Your task to perform on an android device: change the upload size in google photos Image 0: 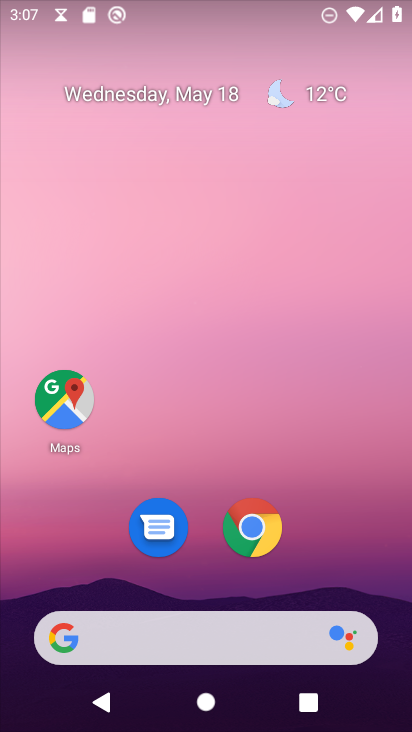
Step 0: drag from (311, 536) to (239, 55)
Your task to perform on an android device: change the upload size in google photos Image 1: 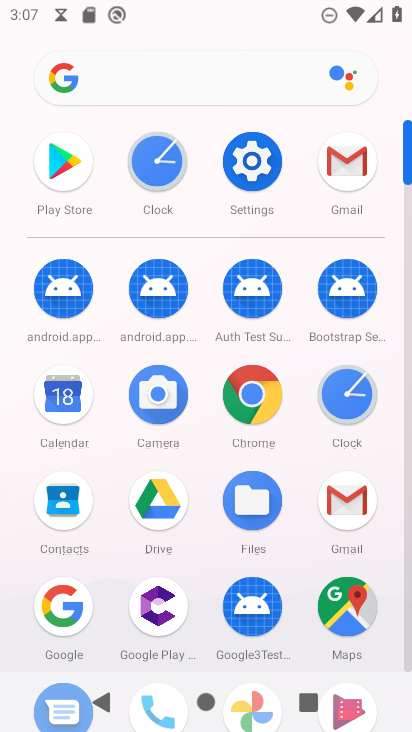
Step 1: drag from (295, 650) to (269, 337)
Your task to perform on an android device: change the upload size in google photos Image 2: 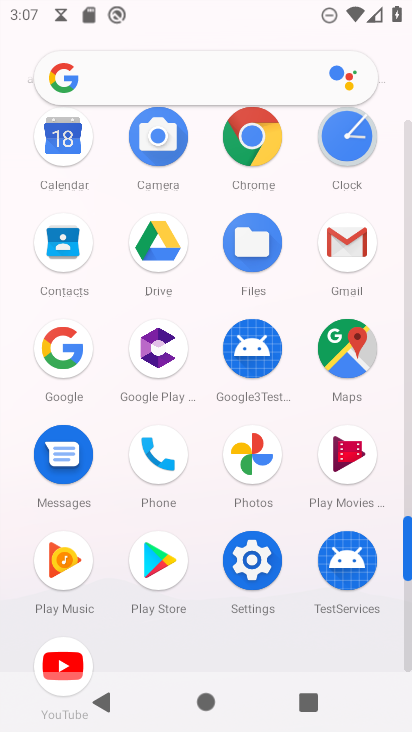
Step 2: click (255, 461)
Your task to perform on an android device: change the upload size in google photos Image 3: 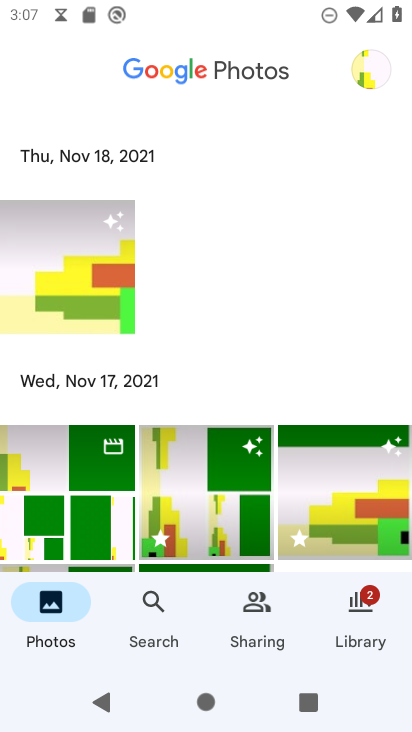
Step 3: click (364, 70)
Your task to perform on an android device: change the upload size in google photos Image 4: 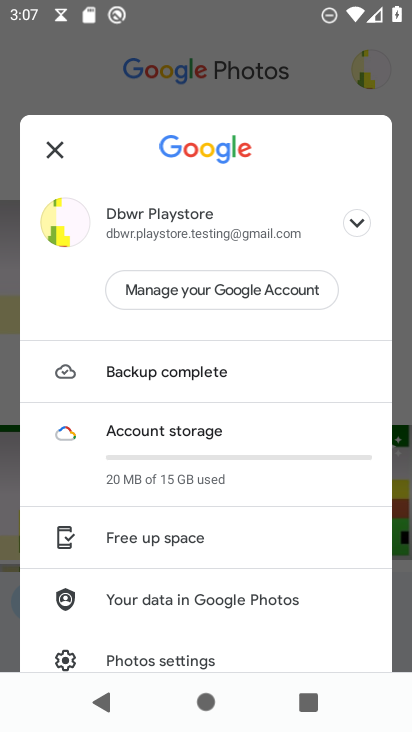
Step 4: drag from (266, 610) to (248, 292)
Your task to perform on an android device: change the upload size in google photos Image 5: 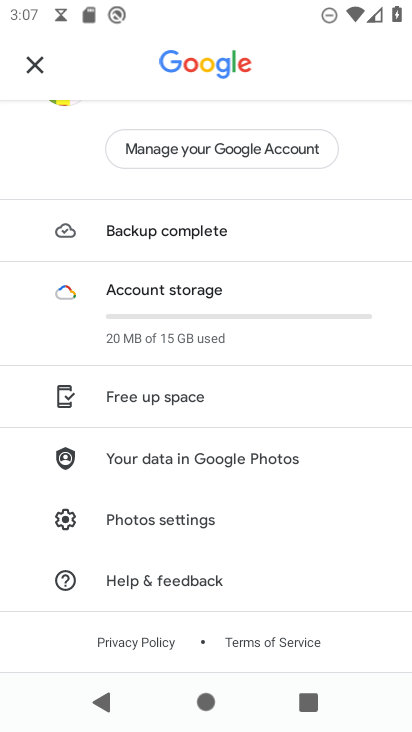
Step 5: click (181, 520)
Your task to perform on an android device: change the upload size in google photos Image 6: 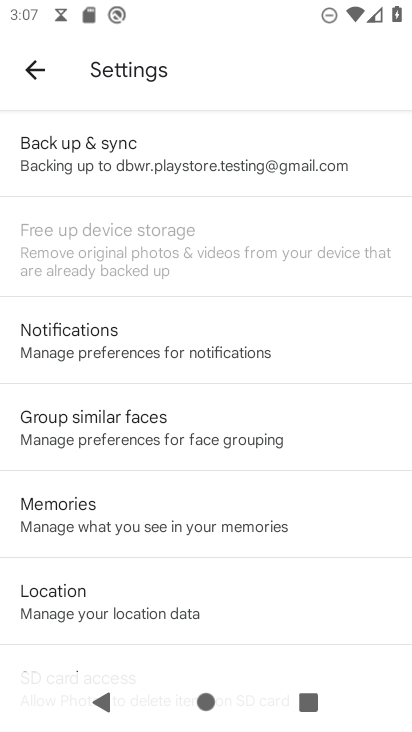
Step 6: click (153, 167)
Your task to perform on an android device: change the upload size in google photos Image 7: 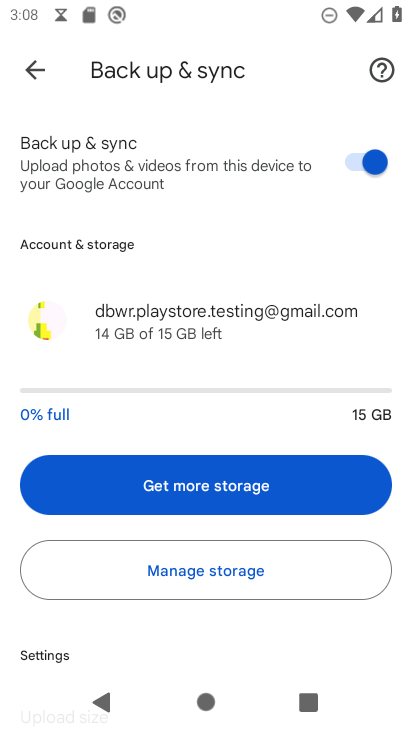
Step 7: drag from (175, 351) to (189, 143)
Your task to perform on an android device: change the upload size in google photos Image 8: 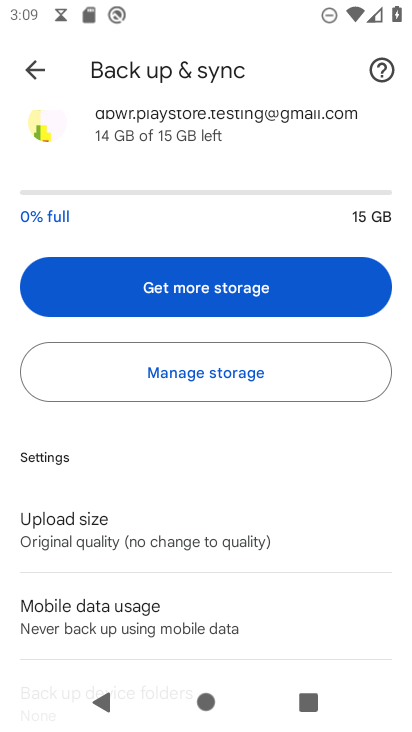
Step 8: click (122, 524)
Your task to perform on an android device: change the upload size in google photos Image 9: 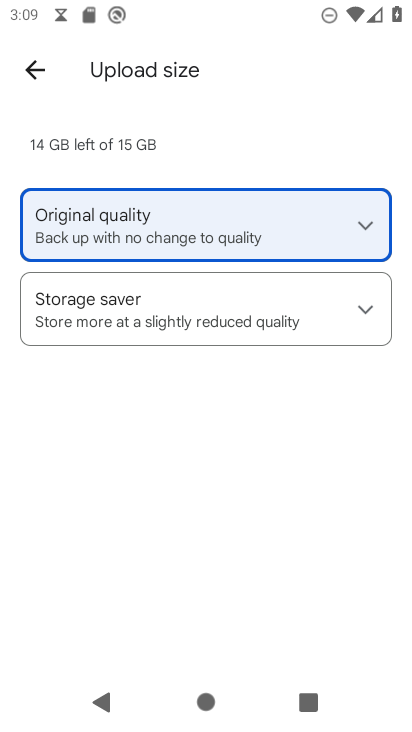
Step 9: click (112, 314)
Your task to perform on an android device: change the upload size in google photos Image 10: 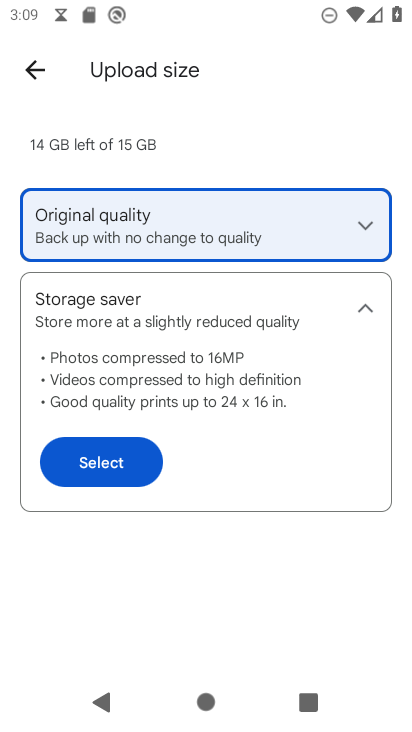
Step 10: click (112, 460)
Your task to perform on an android device: change the upload size in google photos Image 11: 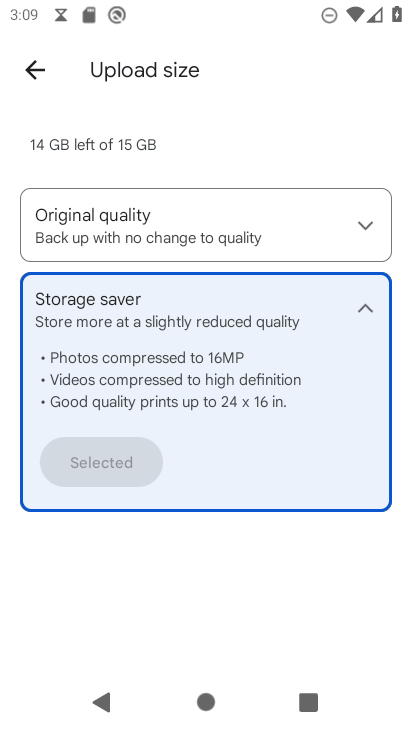
Step 11: task complete